Your task to perform on an android device: make emails show in primary in the gmail app Image 0: 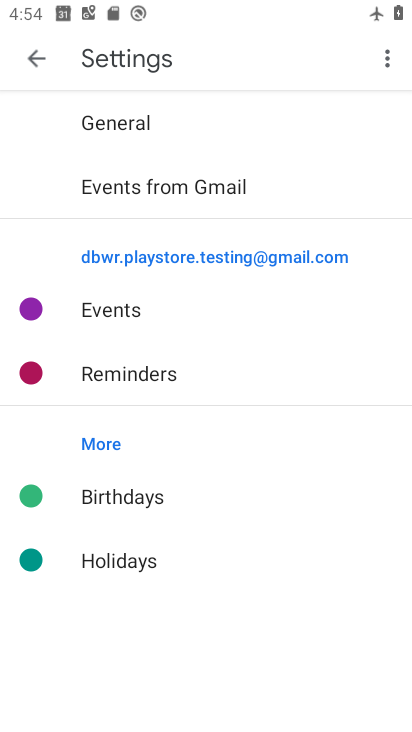
Step 0: press home button
Your task to perform on an android device: make emails show in primary in the gmail app Image 1: 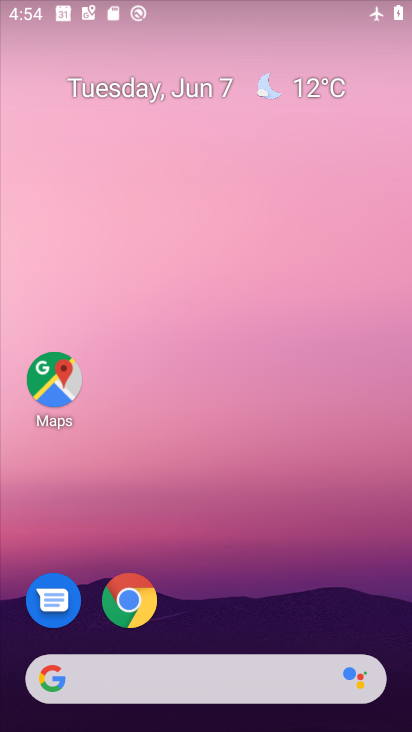
Step 1: drag from (267, 576) to (221, 53)
Your task to perform on an android device: make emails show in primary in the gmail app Image 2: 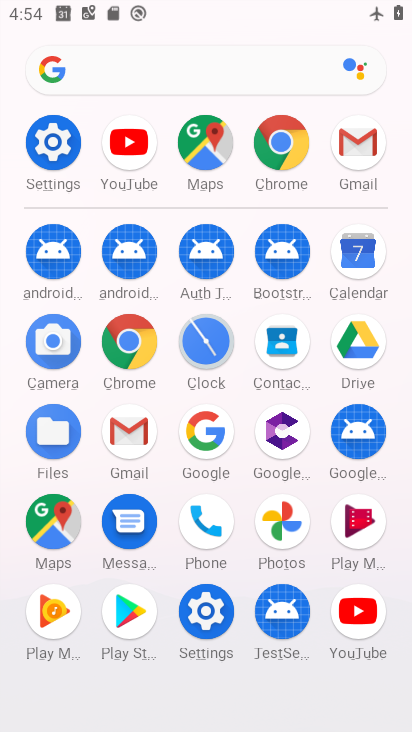
Step 2: click (374, 144)
Your task to perform on an android device: make emails show in primary in the gmail app Image 3: 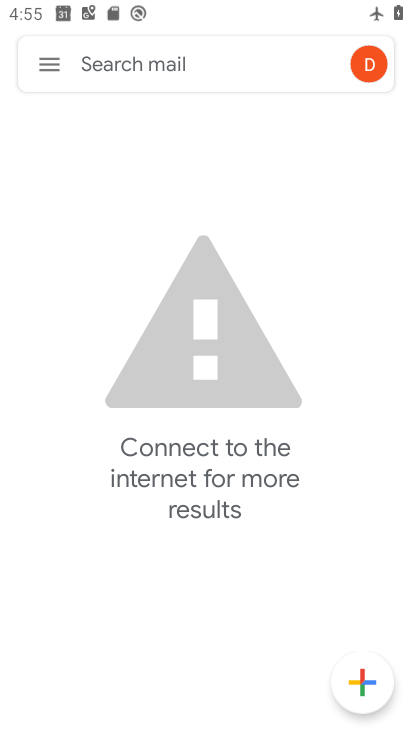
Step 3: click (52, 66)
Your task to perform on an android device: make emails show in primary in the gmail app Image 4: 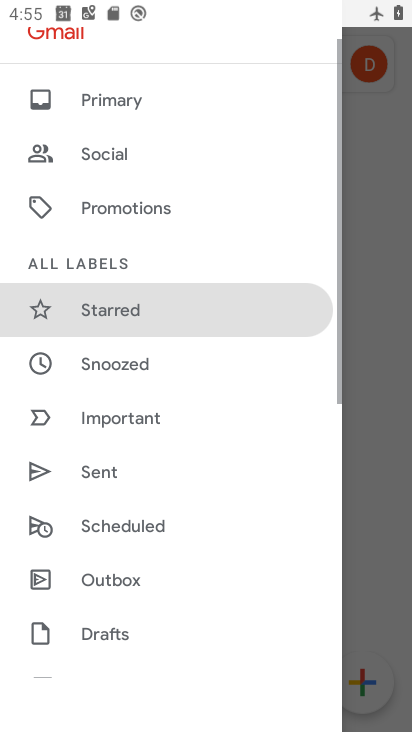
Step 4: drag from (107, 614) to (225, 148)
Your task to perform on an android device: make emails show in primary in the gmail app Image 5: 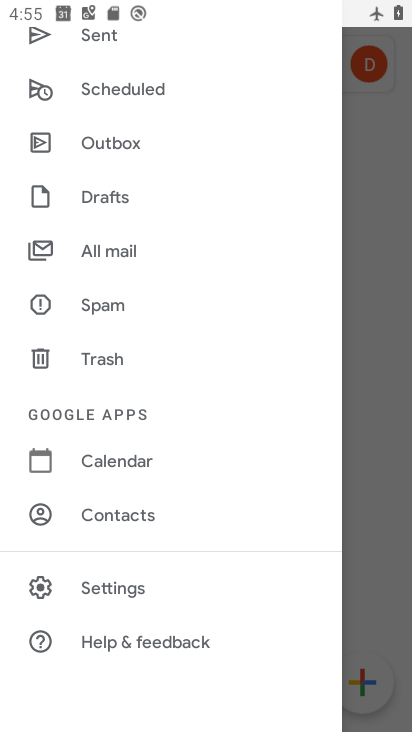
Step 5: click (128, 594)
Your task to perform on an android device: make emails show in primary in the gmail app Image 6: 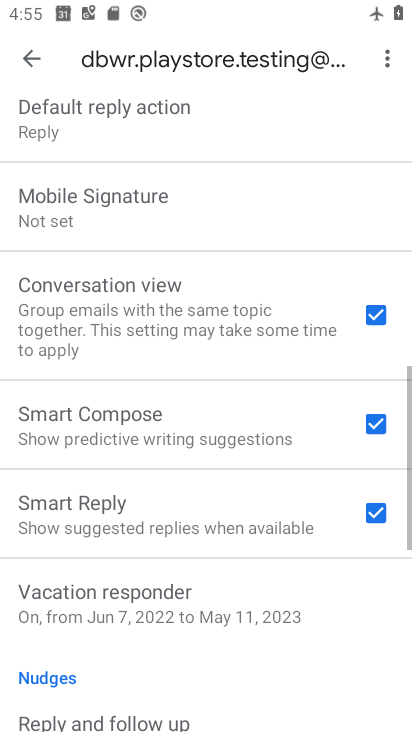
Step 6: drag from (209, 149) to (142, 730)
Your task to perform on an android device: make emails show in primary in the gmail app Image 7: 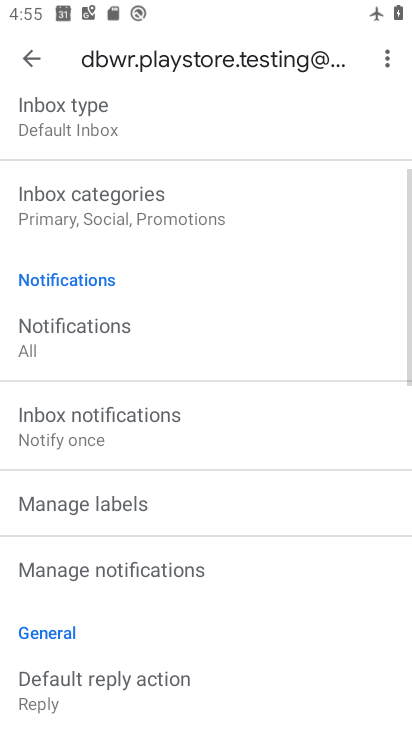
Step 7: drag from (233, 277) to (240, 632)
Your task to perform on an android device: make emails show in primary in the gmail app Image 8: 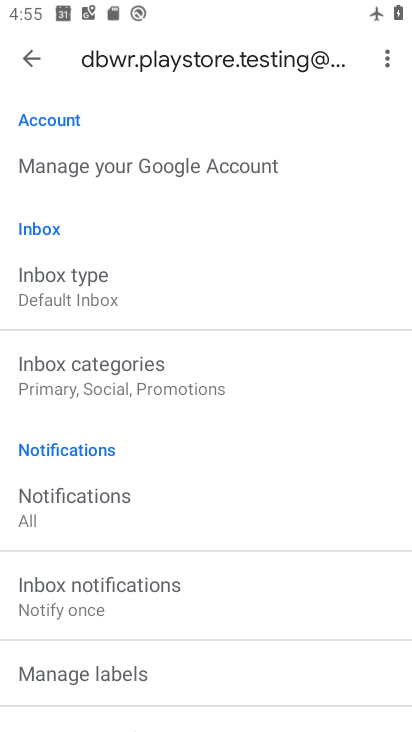
Step 8: click (89, 365)
Your task to perform on an android device: make emails show in primary in the gmail app Image 9: 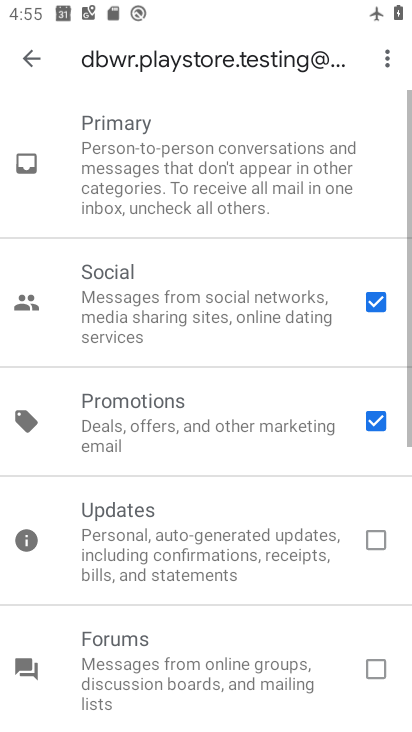
Step 9: task complete